Your task to perform on an android device: install app "eBay: The shopping marketplace" Image 0: 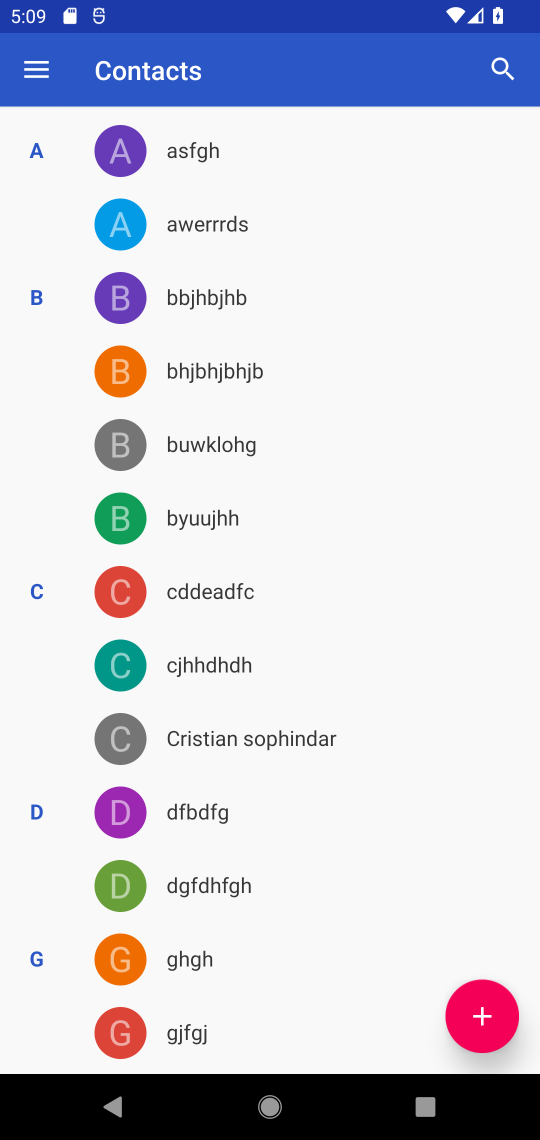
Step 0: press home button
Your task to perform on an android device: install app "eBay: The shopping marketplace" Image 1: 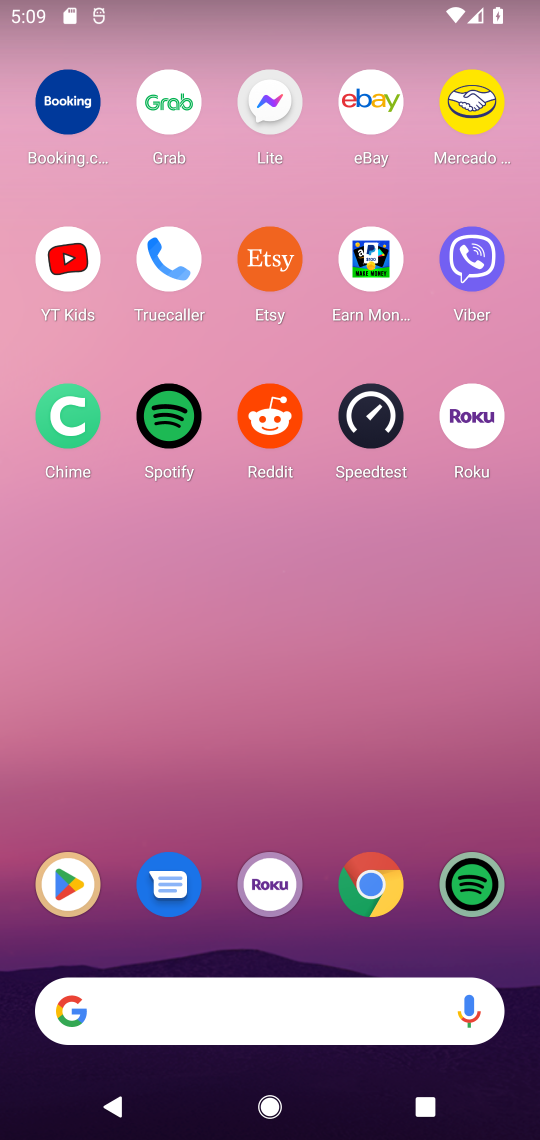
Step 1: drag from (320, 774) to (240, 67)
Your task to perform on an android device: install app "eBay: The shopping marketplace" Image 2: 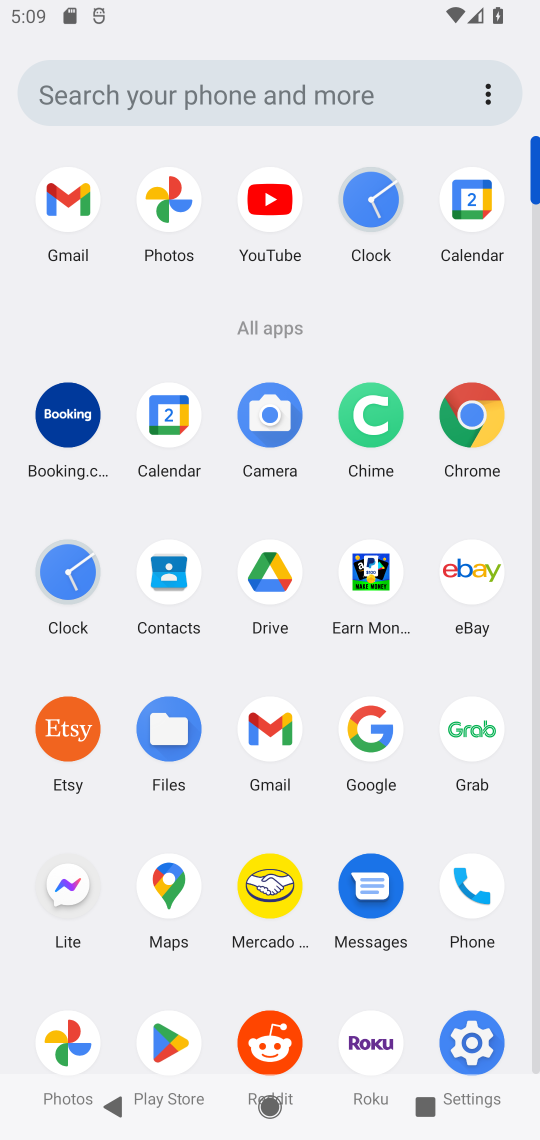
Step 2: click (168, 1024)
Your task to perform on an android device: install app "eBay: The shopping marketplace" Image 3: 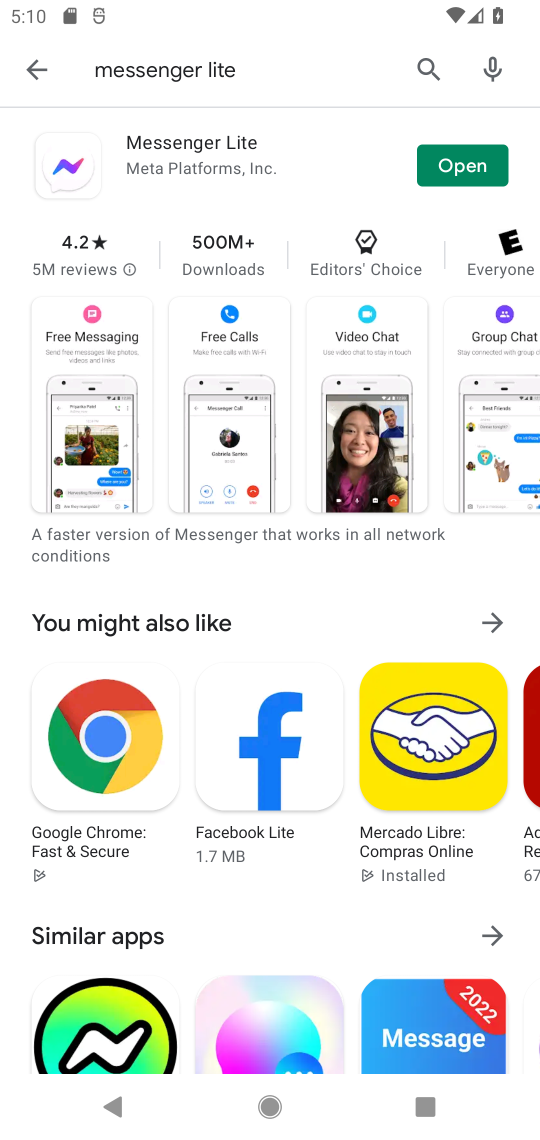
Step 3: click (416, 62)
Your task to perform on an android device: install app "eBay: The shopping marketplace" Image 4: 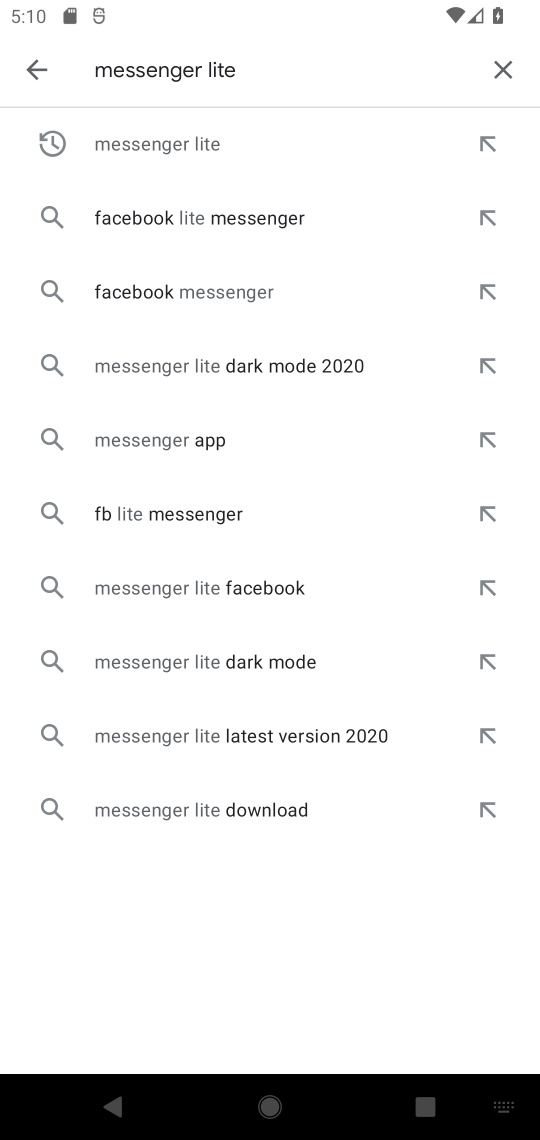
Step 4: click (493, 65)
Your task to perform on an android device: install app "eBay: The shopping marketplace" Image 5: 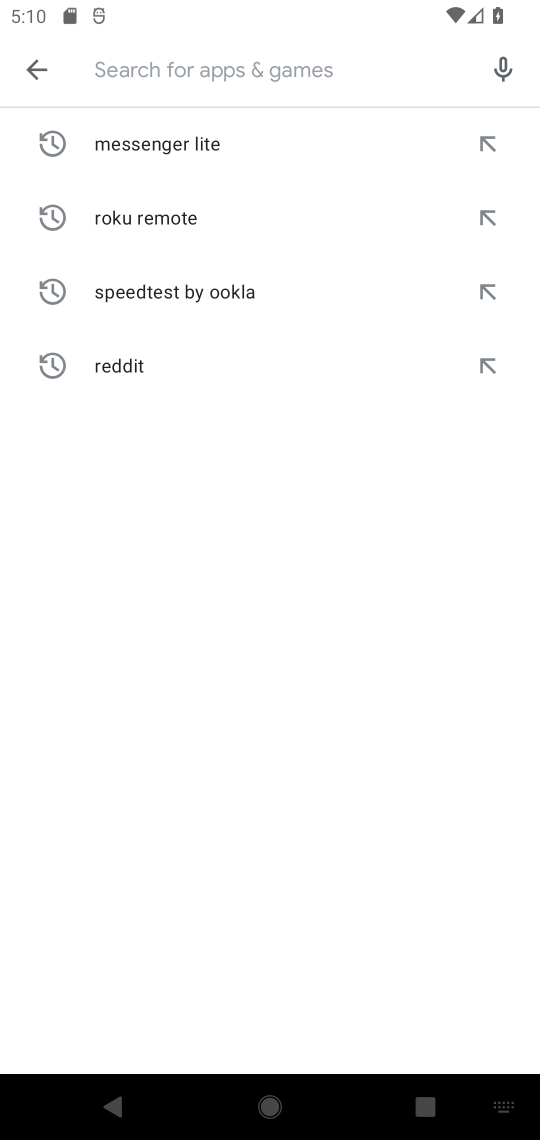
Step 5: type "eBay: The shopping marketplace""
Your task to perform on an android device: install app "eBay: The shopping marketplace" Image 6: 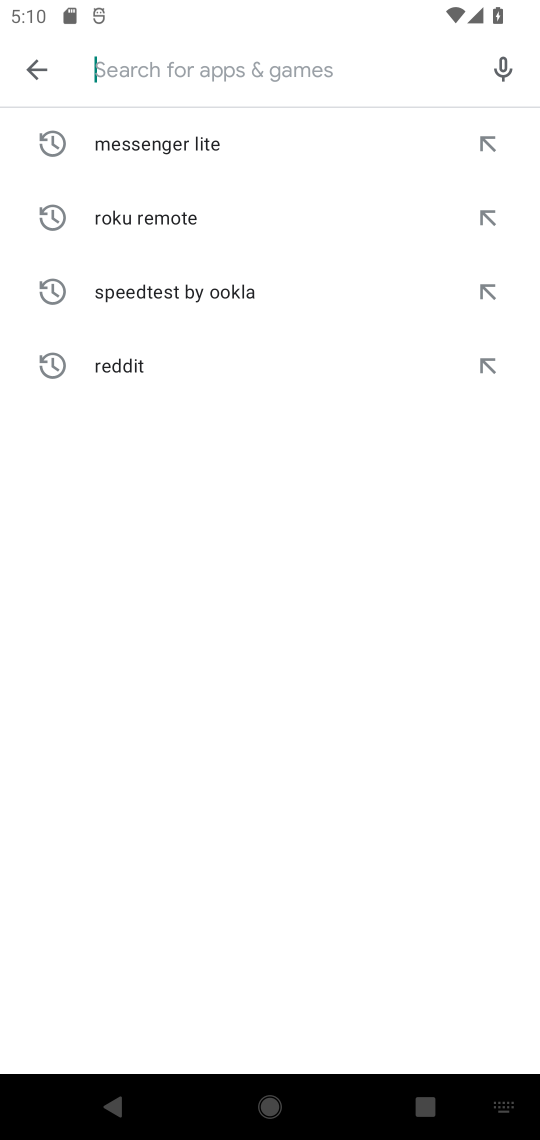
Step 6: type "eBay"
Your task to perform on an android device: install app "eBay: The shopping marketplace" Image 7: 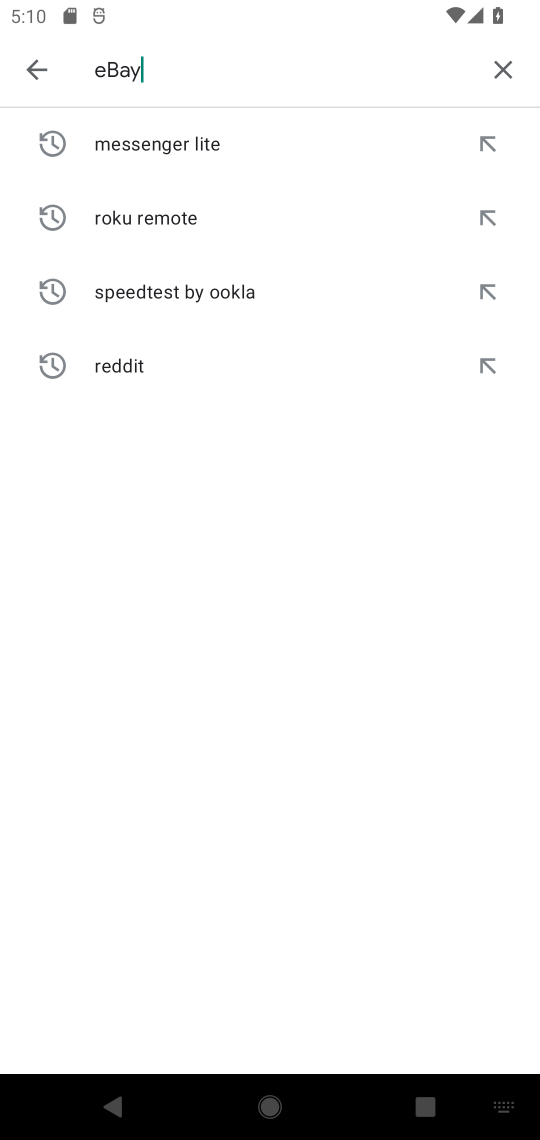
Step 7: type ""
Your task to perform on an android device: install app "eBay: The shopping marketplace" Image 8: 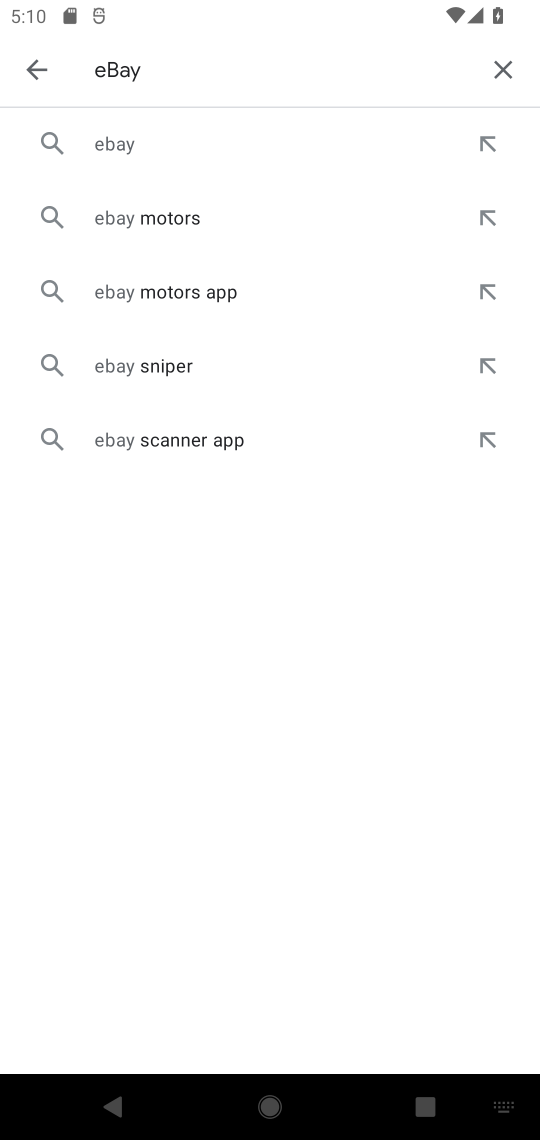
Step 8: click (118, 132)
Your task to perform on an android device: install app "eBay: The shopping marketplace" Image 9: 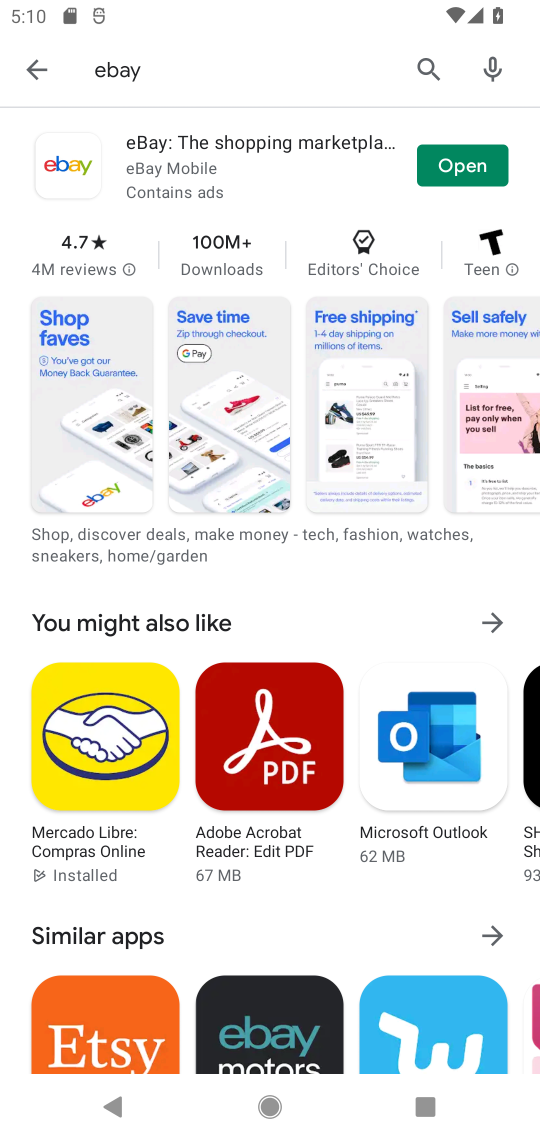
Step 9: task complete